Your task to perform on an android device: change notifications settings Image 0: 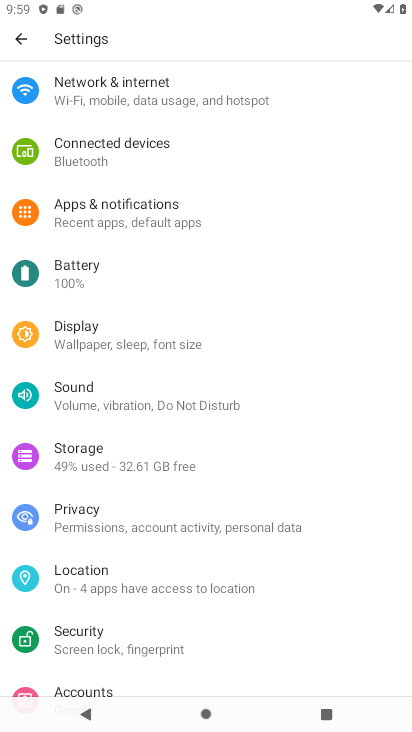
Step 0: click (164, 225)
Your task to perform on an android device: change notifications settings Image 1: 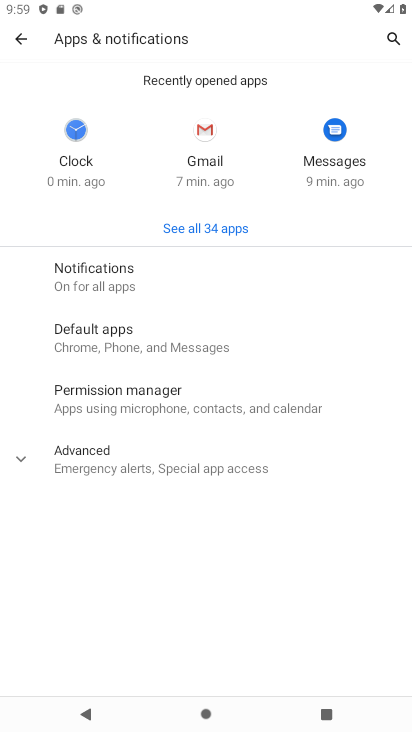
Step 1: click (120, 284)
Your task to perform on an android device: change notifications settings Image 2: 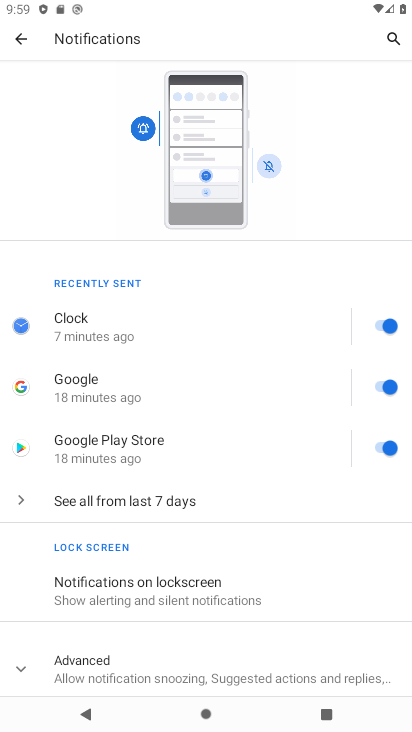
Step 2: click (163, 664)
Your task to perform on an android device: change notifications settings Image 3: 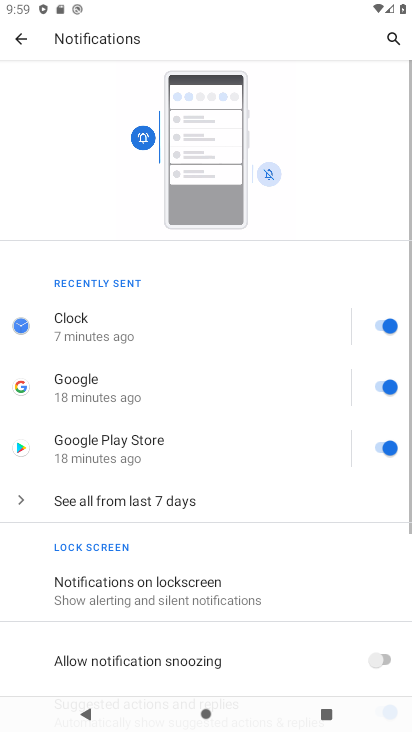
Step 3: drag from (181, 627) to (316, 223)
Your task to perform on an android device: change notifications settings Image 4: 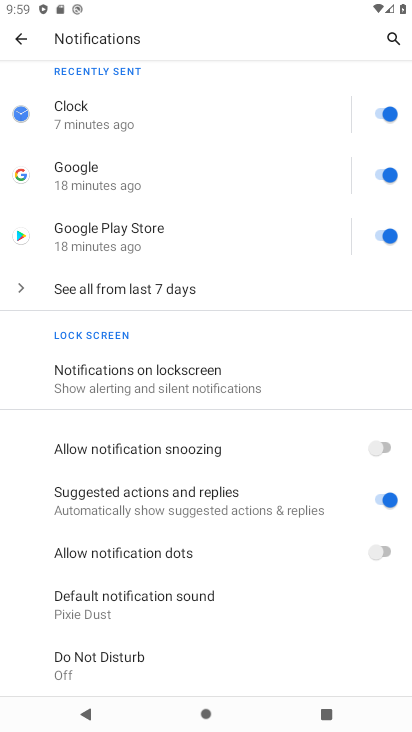
Step 4: click (389, 451)
Your task to perform on an android device: change notifications settings Image 5: 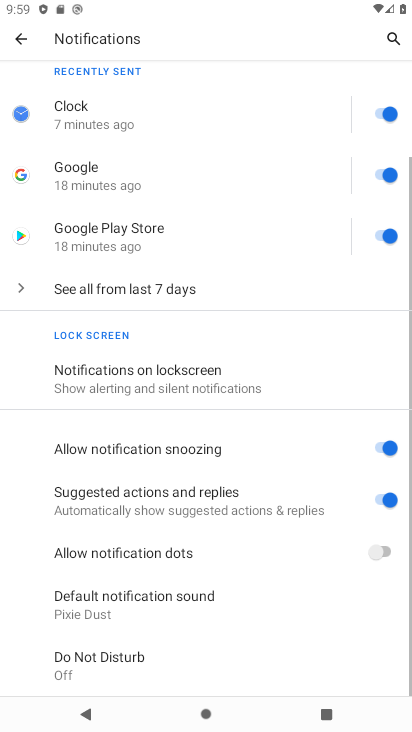
Step 5: click (392, 495)
Your task to perform on an android device: change notifications settings Image 6: 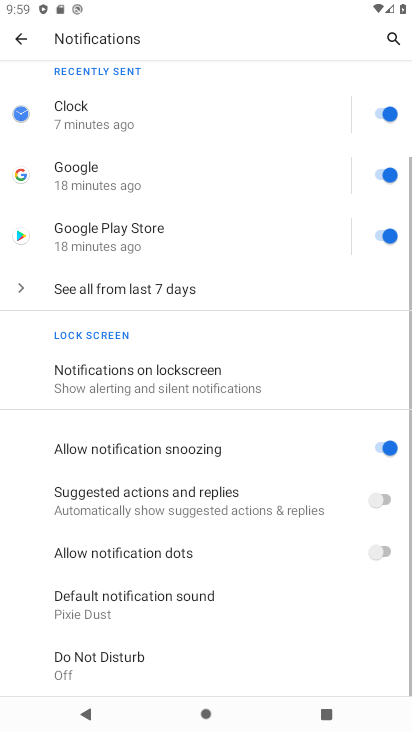
Step 6: click (371, 550)
Your task to perform on an android device: change notifications settings Image 7: 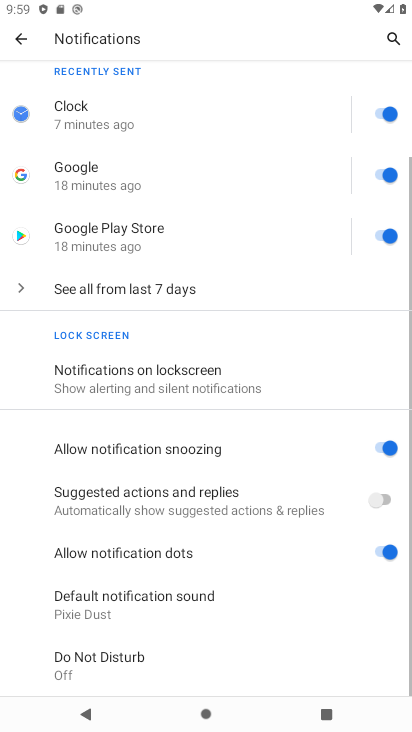
Step 7: task complete